Your task to perform on an android device: Open calendar and show me the fourth week of next month Image 0: 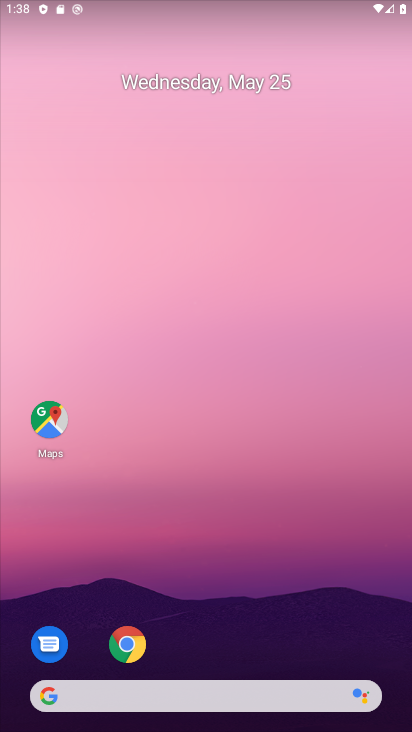
Step 0: drag from (327, 578) to (355, 177)
Your task to perform on an android device: Open calendar and show me the fourth week of next month Image 1: 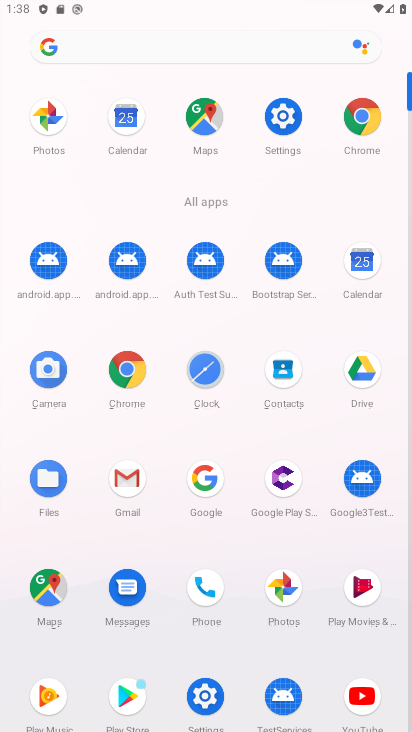
Step 1: click (374, 277)
Your task to perform on an android device: Open calendar and show me the fourth week of next month Image 2: 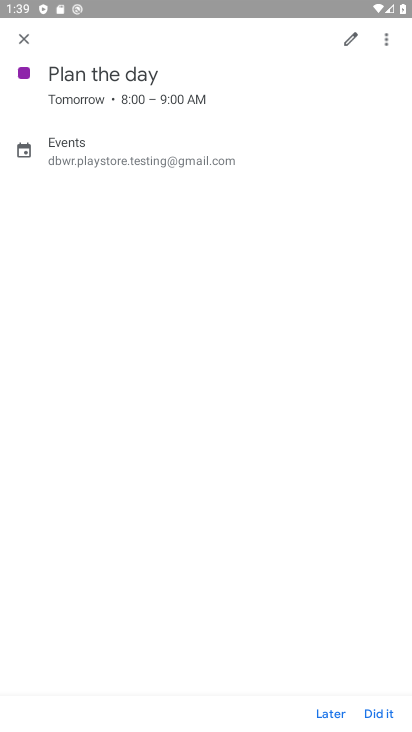
Step 2: click (25, 35)
Your task to perform on an android device: Open calendar and show me the fourth week of next month Image 3: 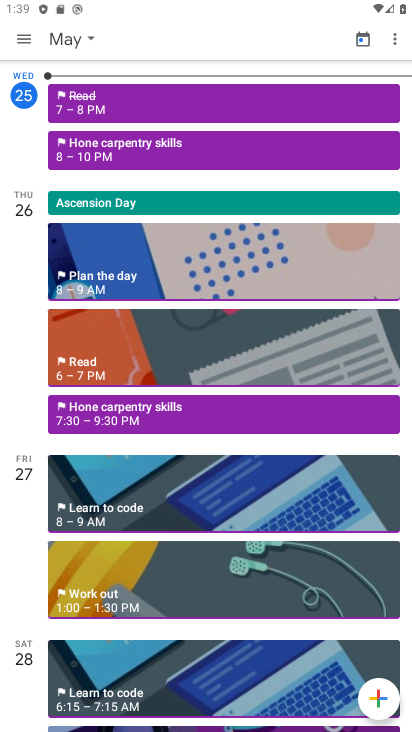
Step 3: click (92, 36)
Your task to perform on an android device: Open calendar and show me the fourth week of next month Image 4: 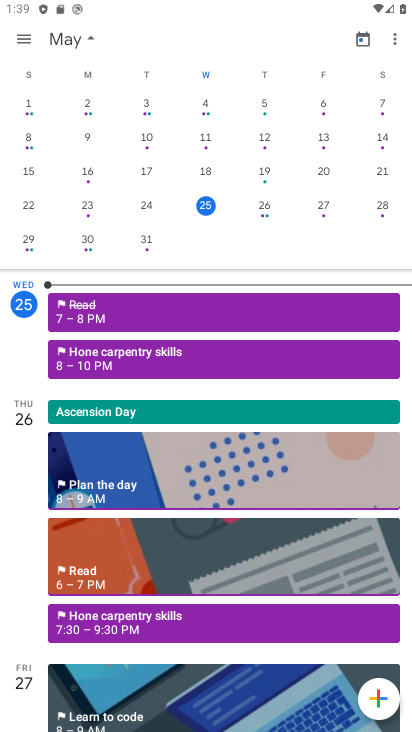
Step 4: drag from (370, 117) to (5, 137)
Your task to perform on an android device: Open calendar and show me the fourth week of next month Image 5: 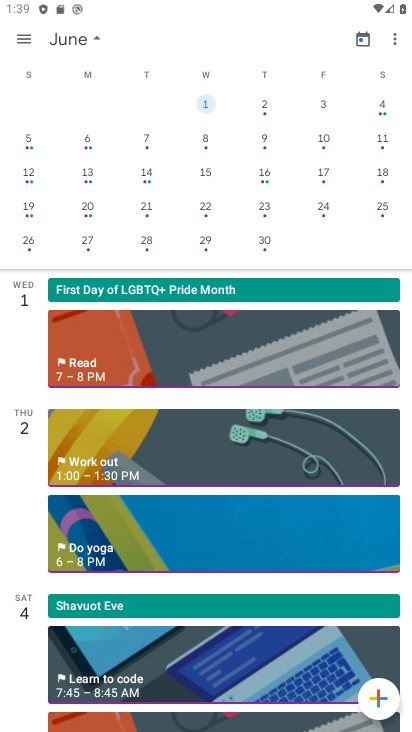
Step 5: click (92, 209)
Your task to perform on an android device: Open calendar and show me the fourth week of next month Image 6: 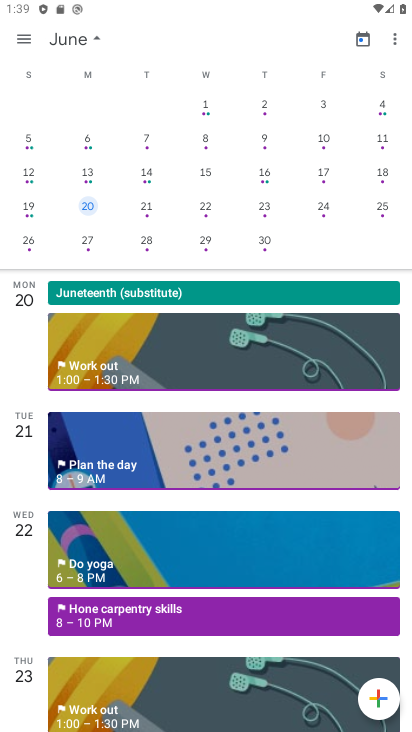
Step 6: task complete